Your task to perform on an android device: check data usage Image 0: 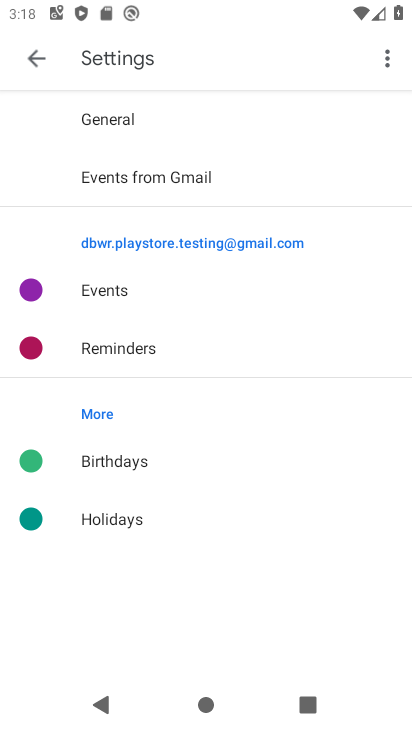
Step 0: press home button
Your task to perform on an android device: check data usage Image 1: 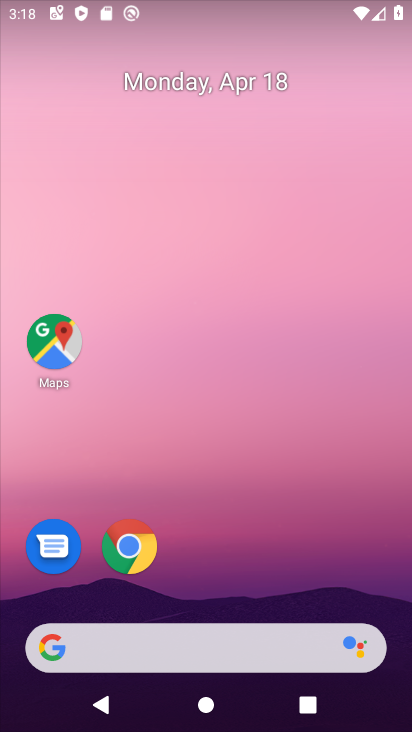
Step 1: drag from (256, 474) to (275, 151)
Your task to perform on an android device: check data usage Image 2: 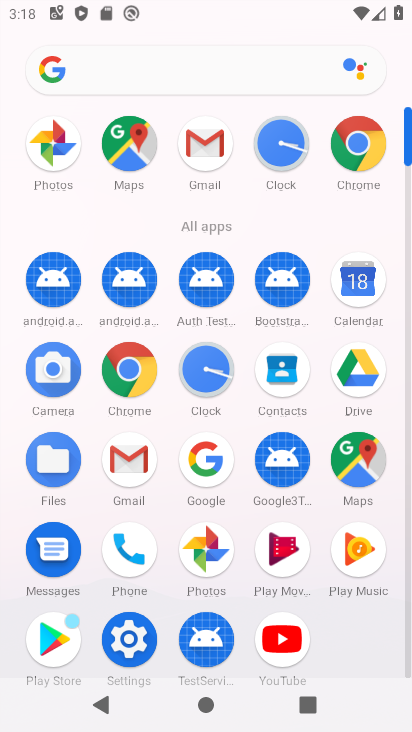
Step 2: click (133, 633)
Your task to perform on an android device: check data usage Image 3: 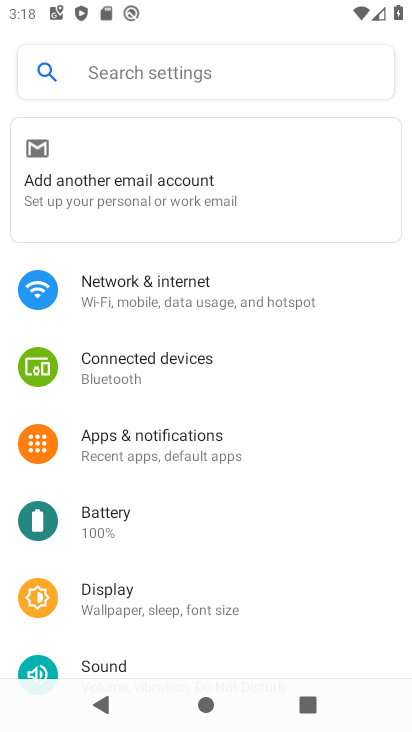
Step 3: drag from (236, 535) to (328, 146)
Your task to perform on an android device: check data usage Image 4: 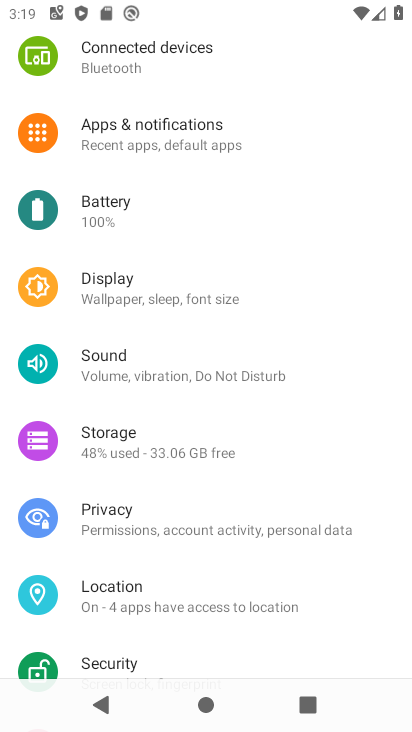
Step 4: click (122, 442)
Your task to perform on an android device: check data usage Image 5: 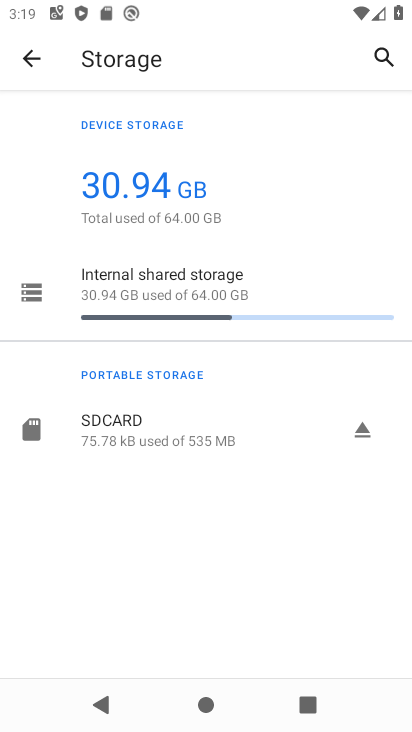
Step 5: task complete